Your task to perform on an android device: Open CNN.com Image 0: 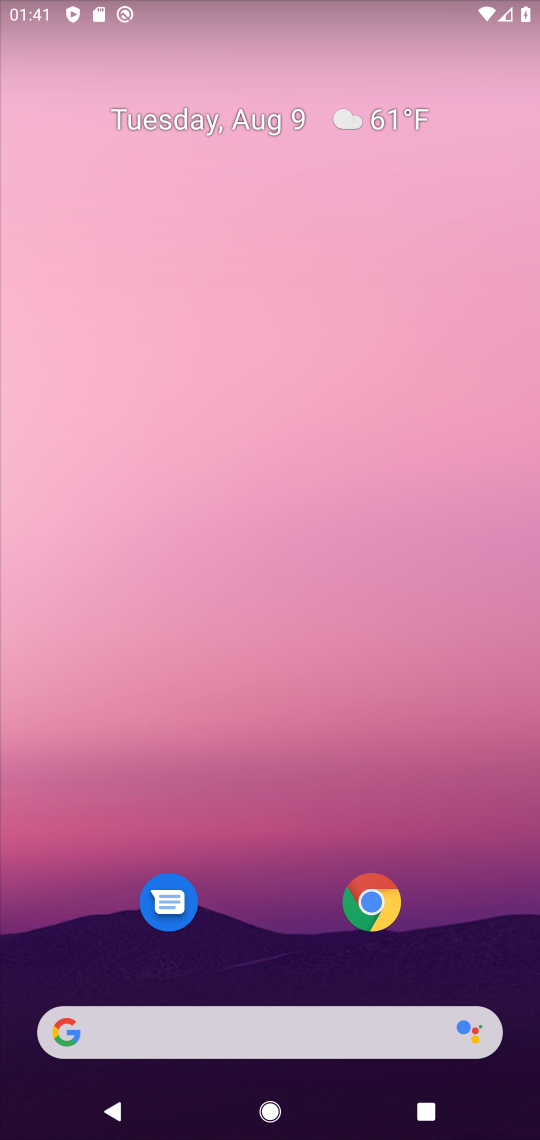
Step 0: drag from (294, 1002) to (320, 78)
Your task to perform on an android device: Open CNN.com Image 1: 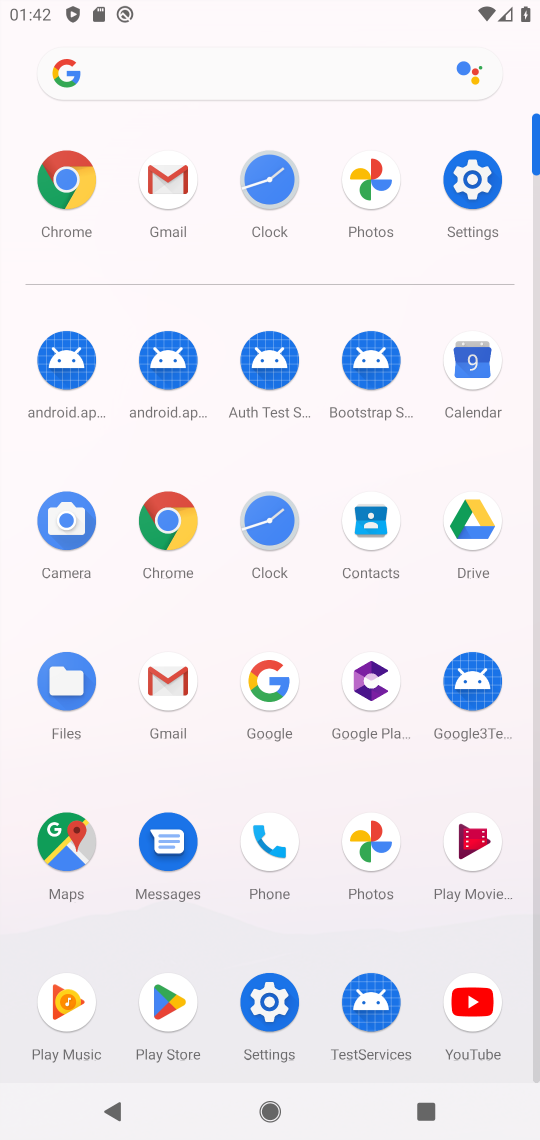
Step 1: click (265, 674)
Your task to perform on an android device: Open CNN.com Image 2: 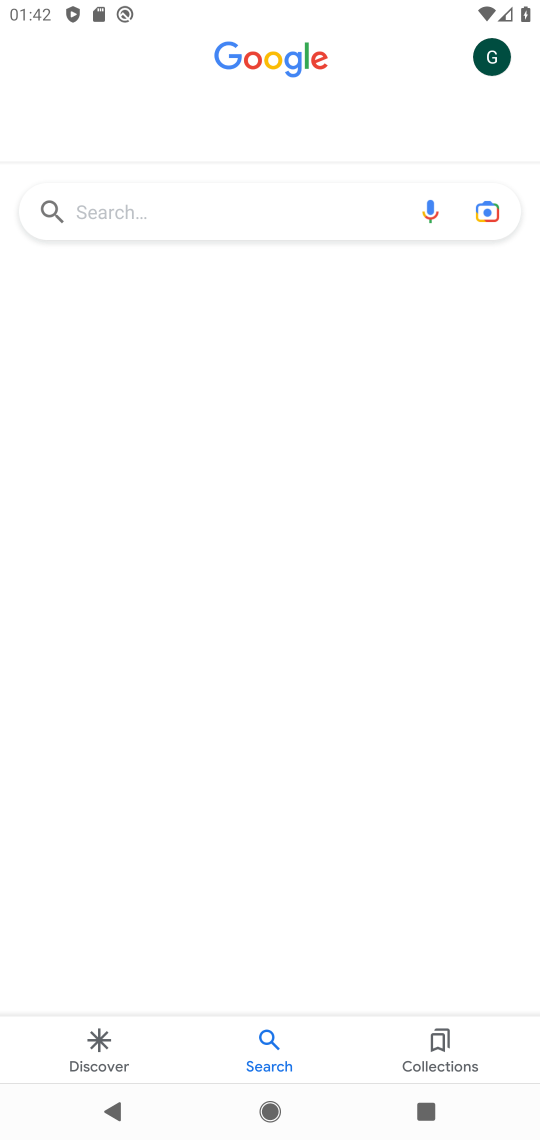
Step 2: click (174, 213)
Your task to perform on an android device: Open CNN.com Image 3: 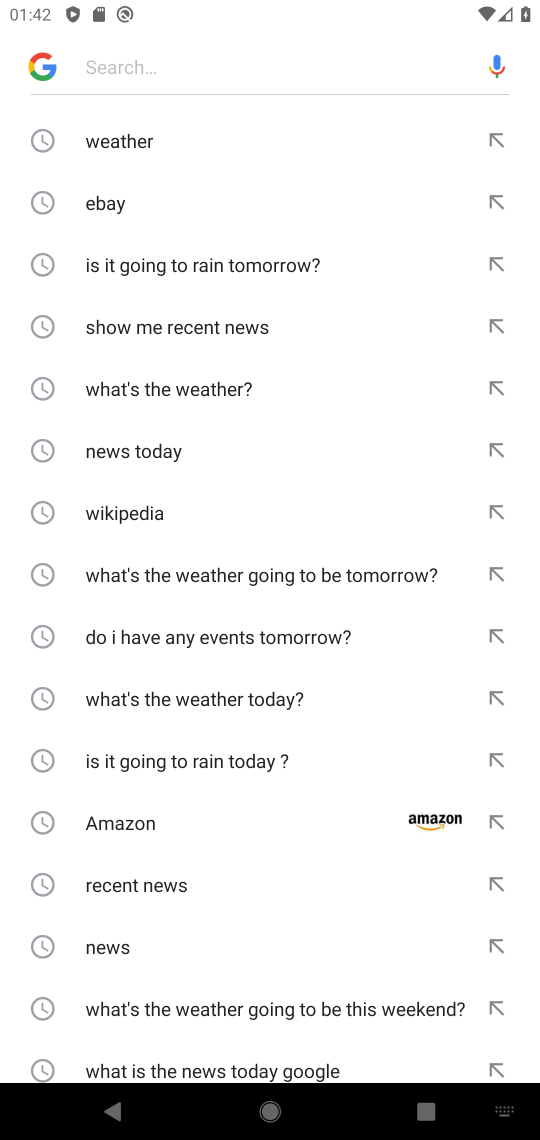
Step 3: drag from (170, 920) to (213, 357)
Your task to perform on an android device: Open CNN.com Image 4: 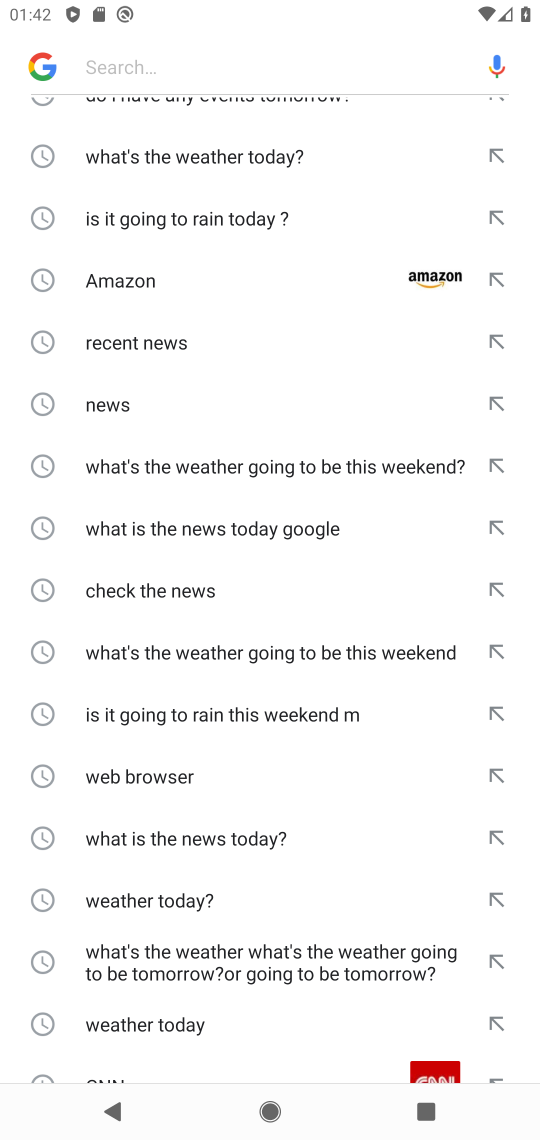
Step 4: drag from (185, 916) to (244, 418)
Your task to perform on an android device: Open CNN.com Image 5: 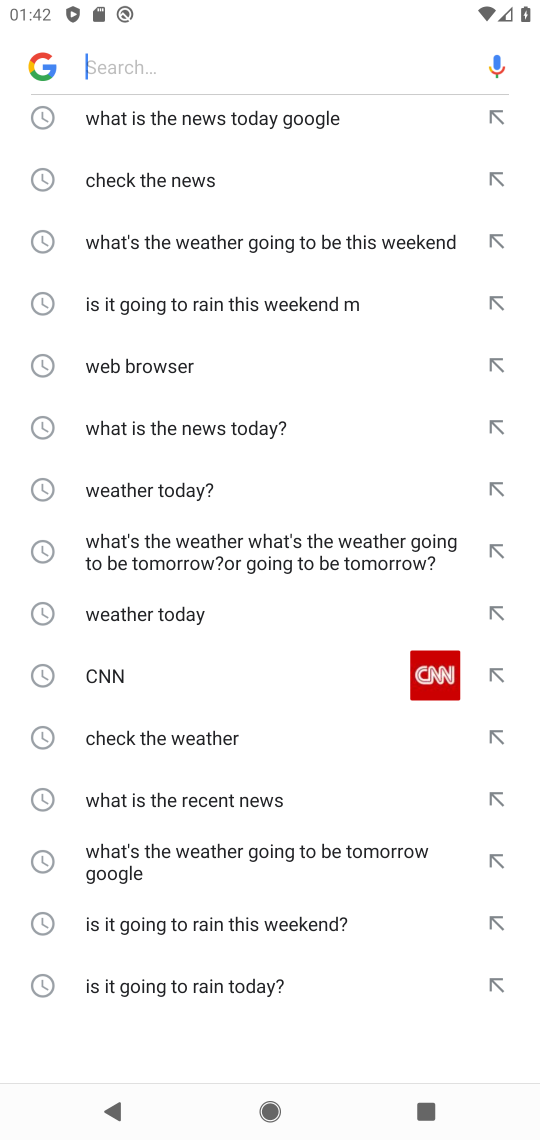
Step 5: click (160, 671)
Your task to perform on an android device: Open CNN.com Image 6: 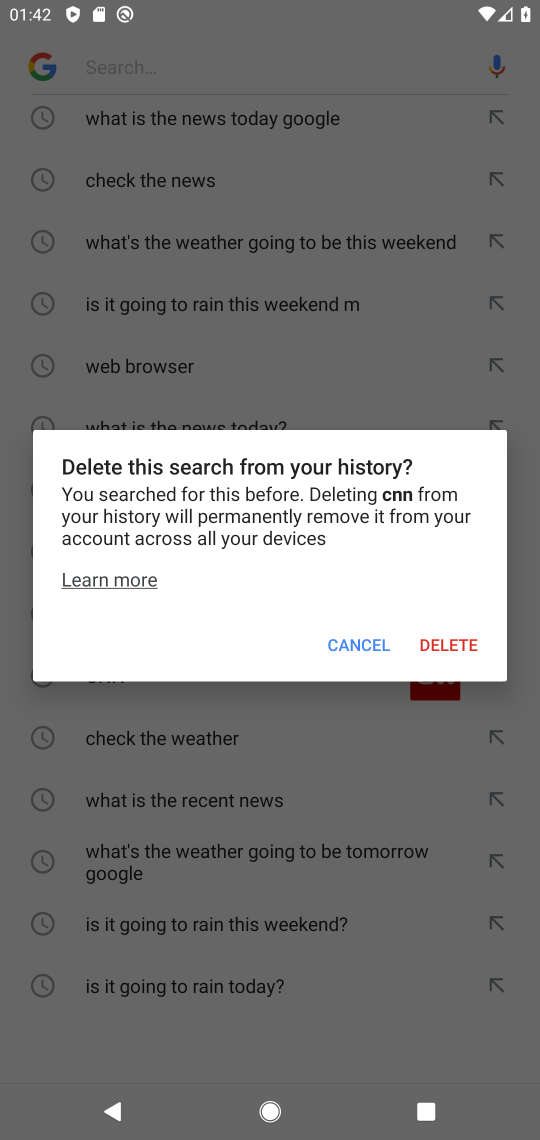
Step 6: click (344, 646)
Your task to perform on an android device: Open CNN.com Image 7: 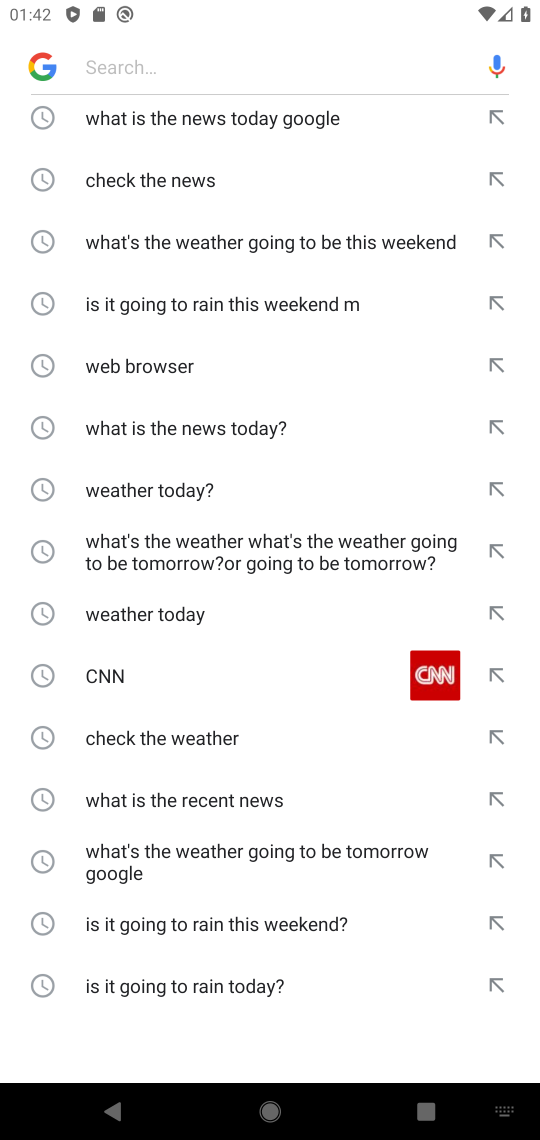
Step 7: click (124, 679)
Your task to perform on an android device: Open CNN.com Image 8: 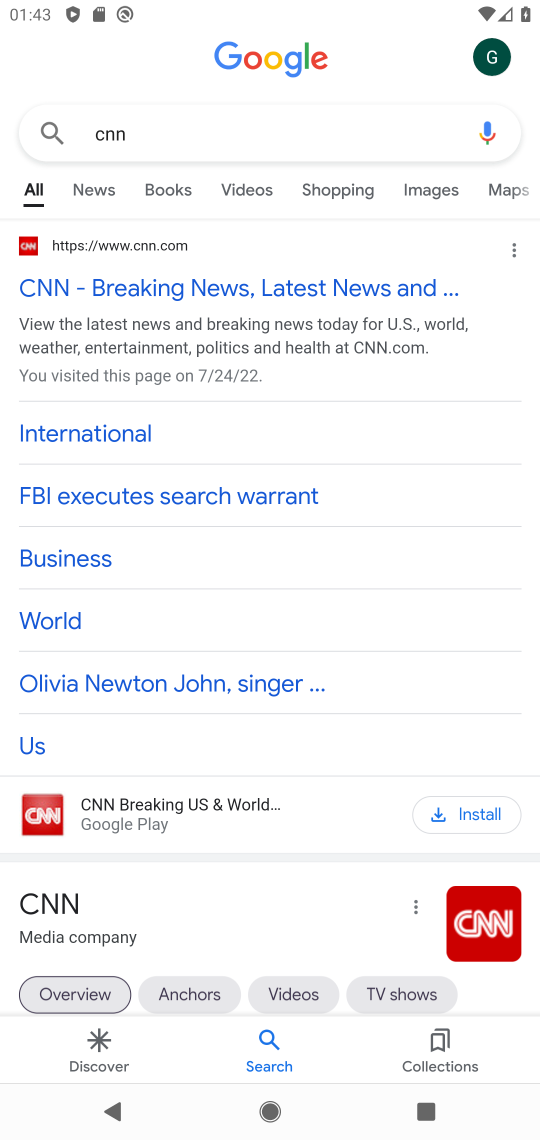
Step 8: task complete